Your task to perform on an android device: change your default location settings in chrome Image 0: 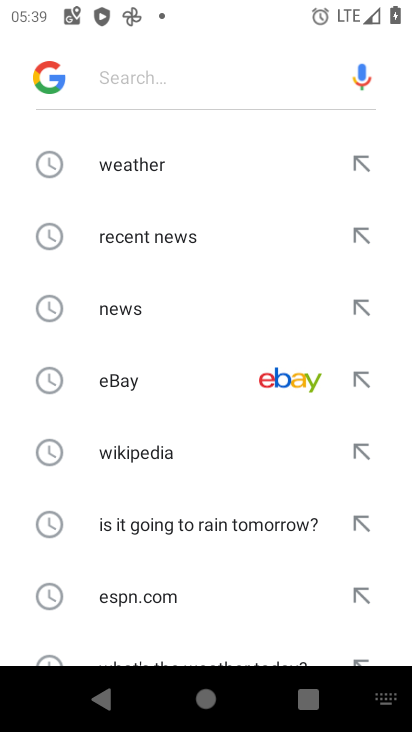
Step 0: press home button
Your task to perform on an android device: change your default location settings in chrome Image 1: 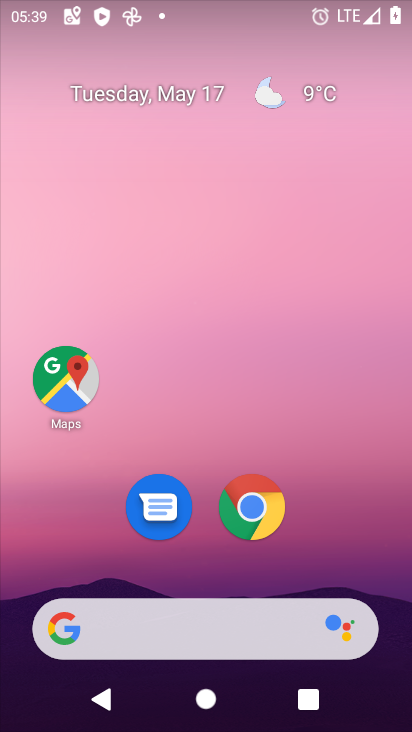
Step 1: click (249, 511)
Your task to perform on an android device: change your default location settings in chrome Image 2: 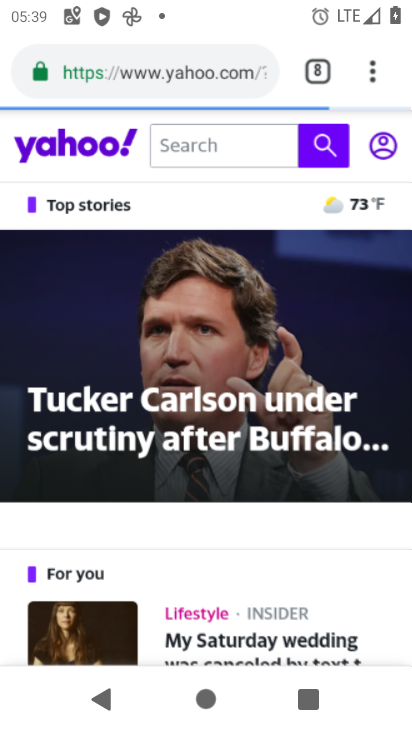
Step 2: click (374, 72)
Your task to perform on an android device: change your default location settings in chrome Image 3: 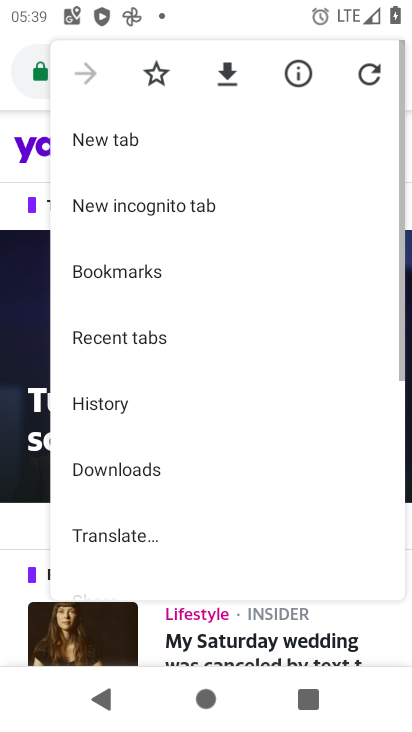
Step 3: drag from (237, 427) to (220, 223)
Your task to perform on an android device: change your default location settings in chrome Image 4: 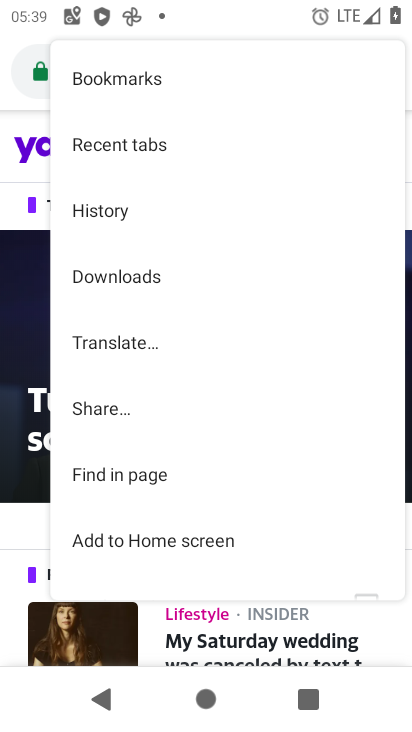
Step 4: drag from (218, 473) to (212, 250)
Your task to perform on an android device: change your default location settings in chrome Image 5: 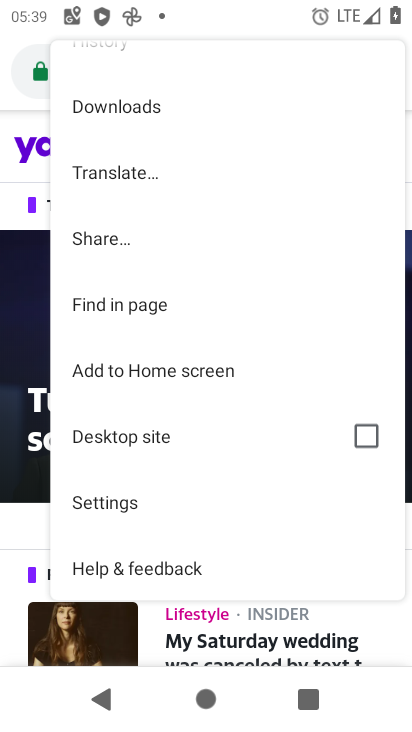
Step 5: click (187, 505)
Your task to perform on an android device: change your default location settings in chrome Image 6: 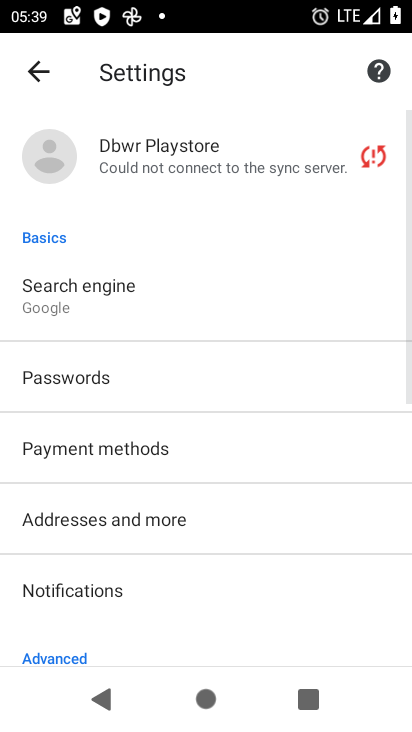
Step 6: click (112, 303)
Your task to perform on an android device: change your default location settings in chrome Image 7: 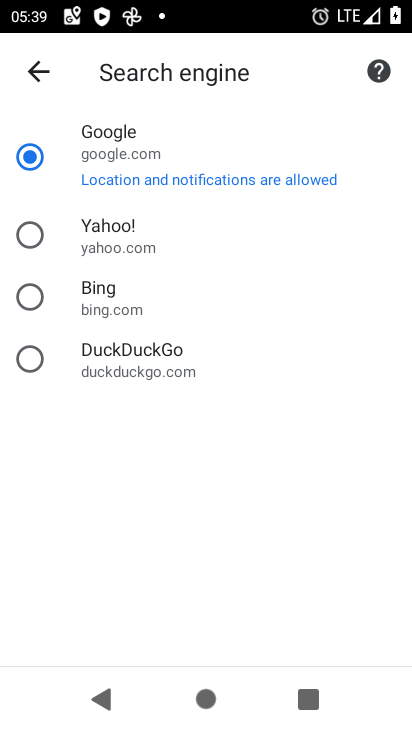
Step 7: click (216, 140)
Your task to perform on an android device: change your default location settings in chrome Image 8: 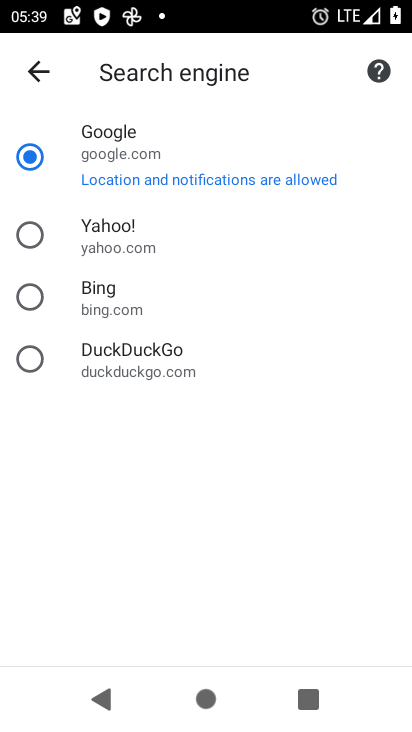
Step 8: task complete